Your task to perform on an android device: Go to Yahoo.com Image 0: 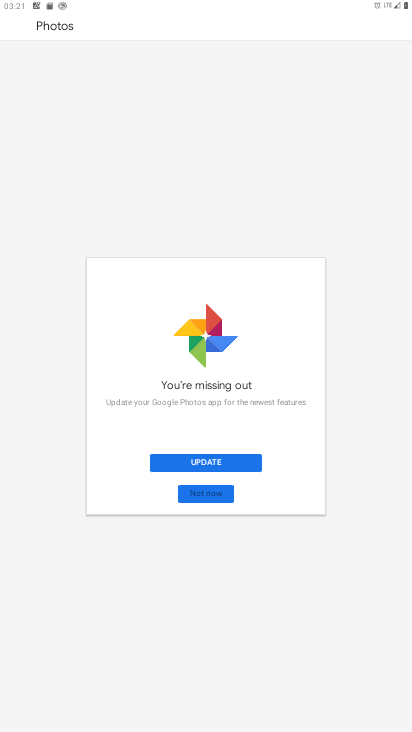
Step 0: press home button
Your task to perform on an android device: Go to Yahoo.com Image 1: 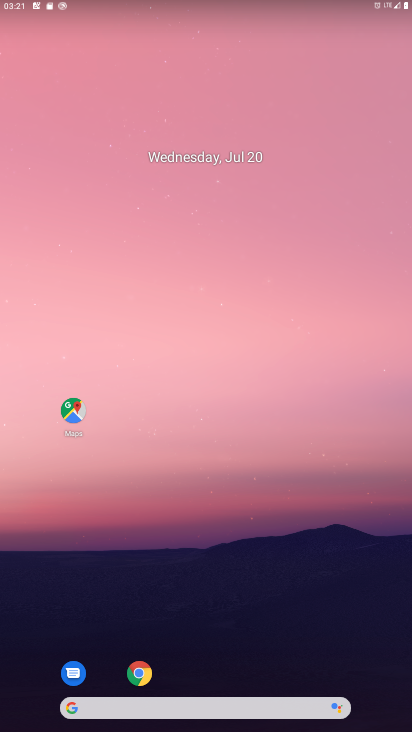
Step 1: click (143, 680)
Your task to perform on an android device: Go to Yahoo.com Image 2: 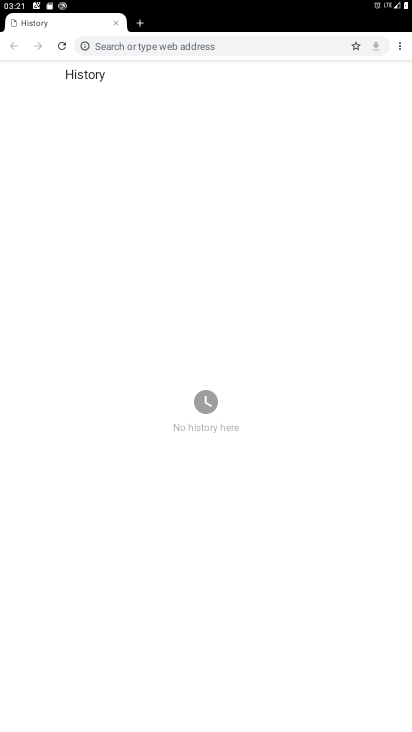
Step 2: click (235, 44)
Your task to perform on an android device: Go to Yahoo.com Image 3: 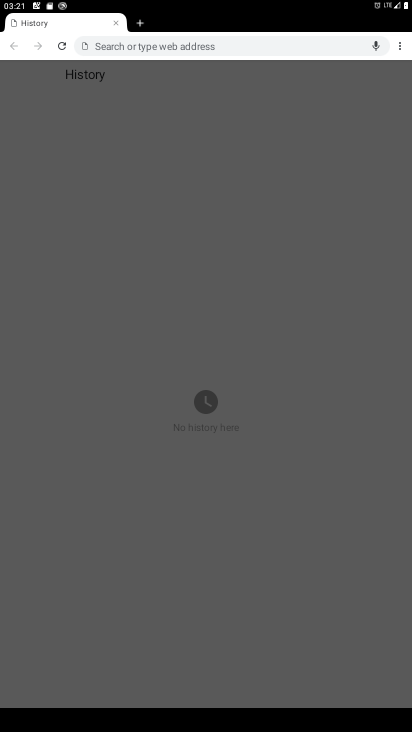
Step 3: type "yahoo.com"
Your task to perform on an android device: Go to Yahoo.com Image 4: 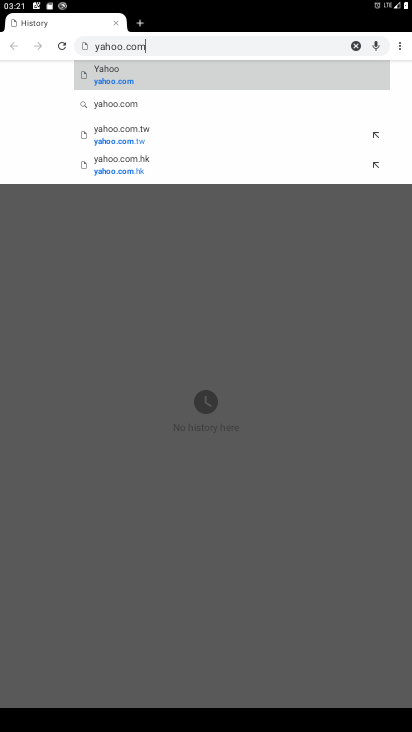
Step 4: click (130, 79)
Your task to perform on an android device: Go to Yahoo.com Image 5: 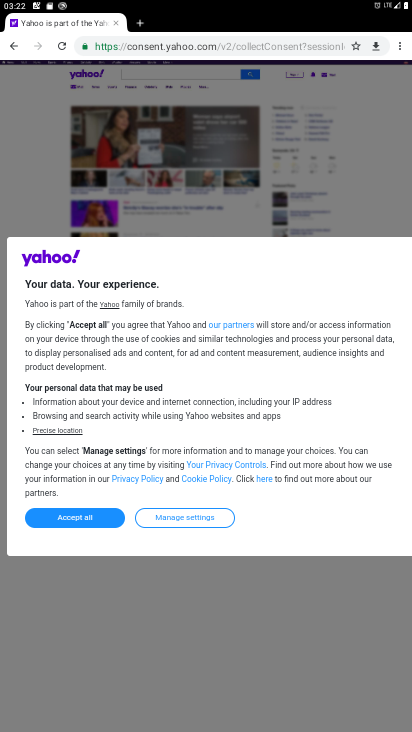
Step 5: task complete